Your task to perform on an android device: open a bookmark in the chrome app Image 0: 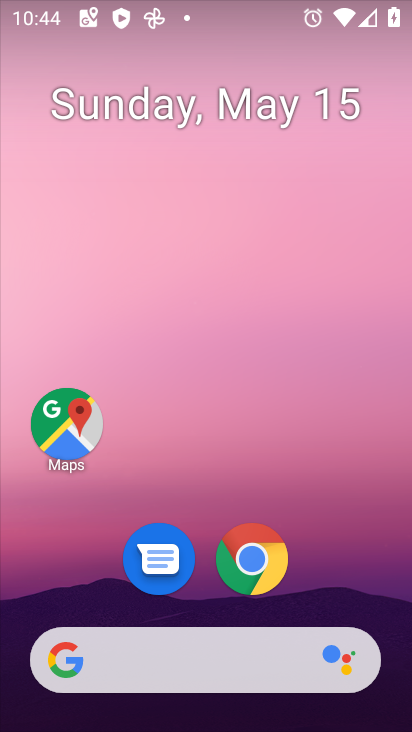
Step 0: drag from (361, 563) to (370, 138)
Your task to perform on an android device: open a bookmark in the chrome app Image 1: 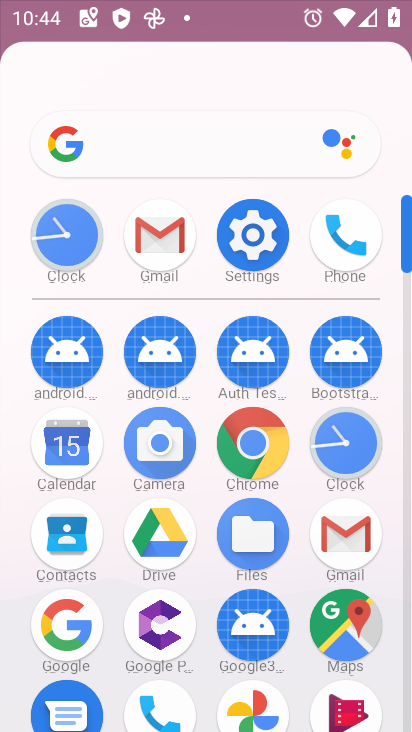
Step 1: click (370, 138)
Your task to perform on an android device: open a bookmark in the chrome app Image 2: 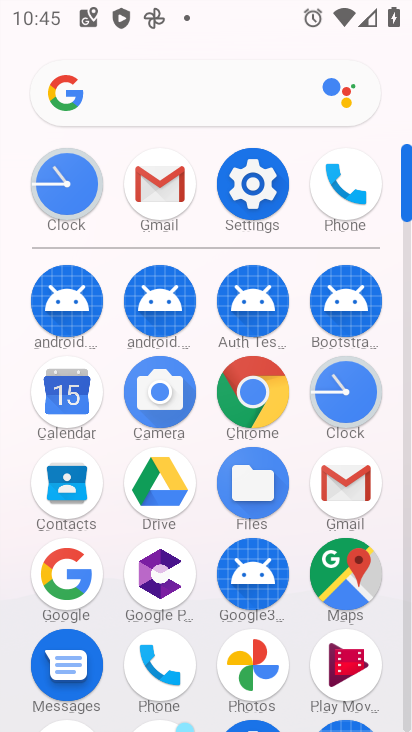
Step 2: click (250, 420)
Your task to perform on an android device: open a bookmark in the chrome app Image 3: 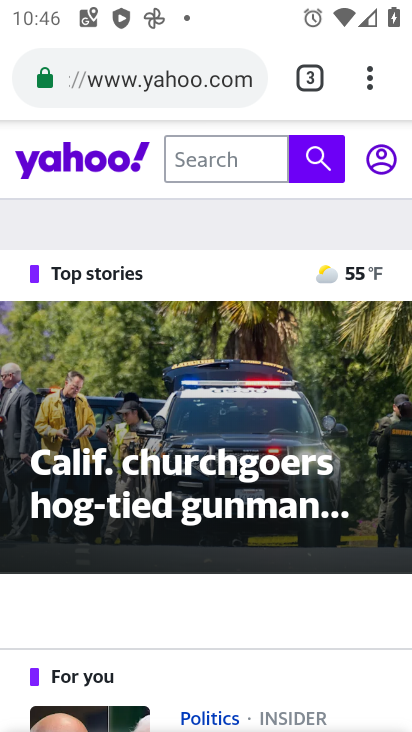
Step 3: click (369, 83)
Your task to perform on an android device: open a bookmark in the chrome app Image 4: 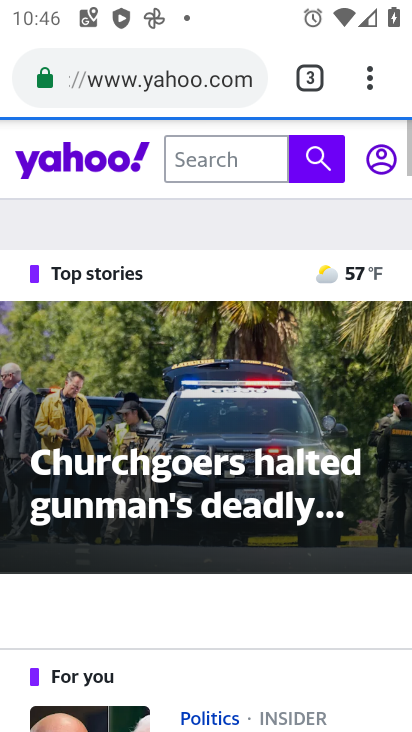
Step 4: click (372, 86)
Your task to perform on an android device: open a bookmark in the chrome app Image 5: 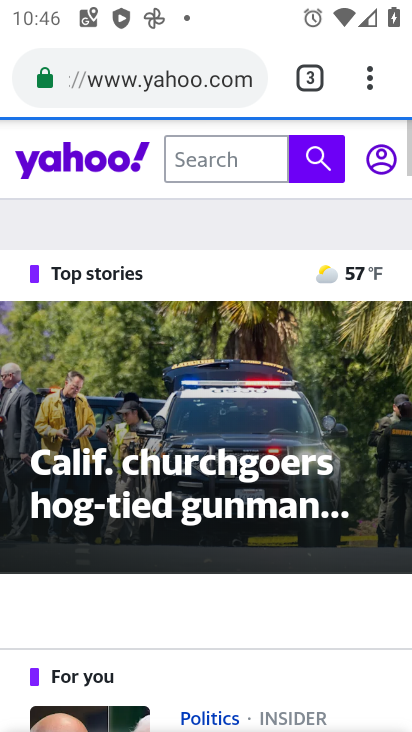
Step 5: click (372, 86)
Your task to perform on an android device: open a bookmark in the chrome app Image 6: 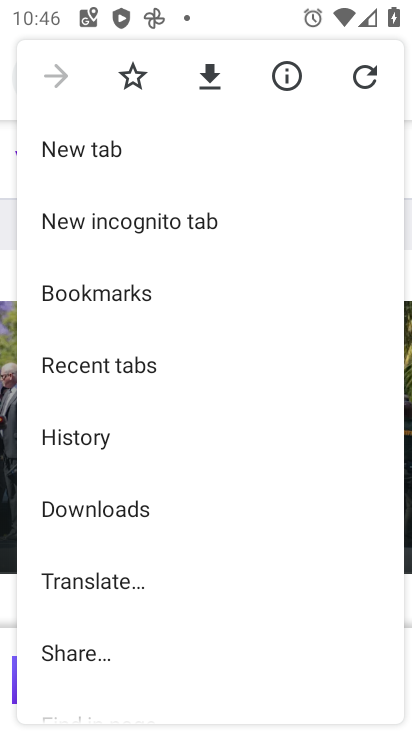
Step 6: click (233, 295)
Your task to perform on an android device: open a bookmark in the chrome app Image 7: 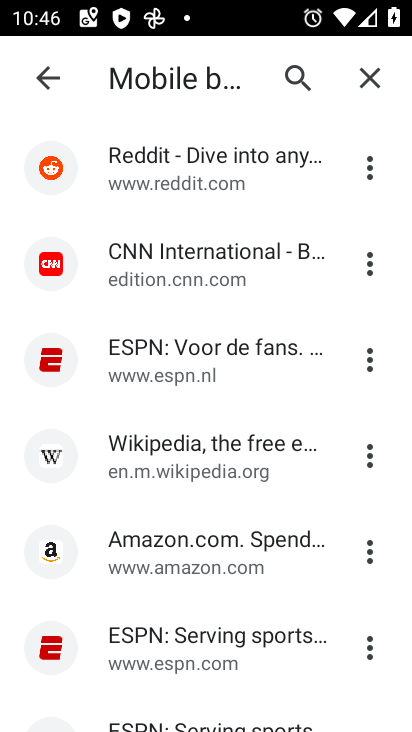
Step 7: click (132, 381)
Your task to perform on an android device: open a bookmark in the chrome app Image 8: 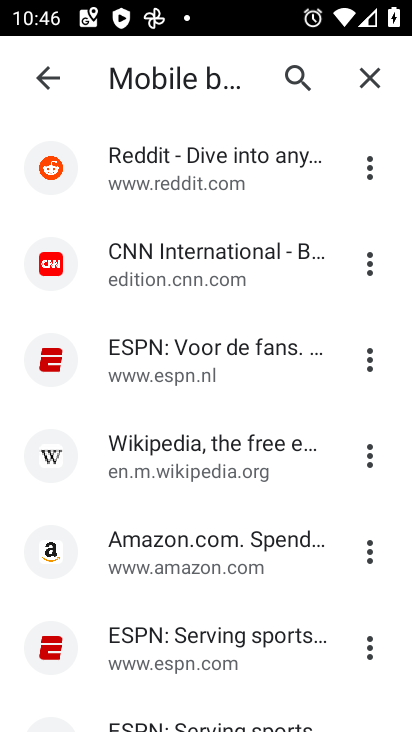
Step 8: task complete